Your task to perform on an android device: check out phone information Image 0: 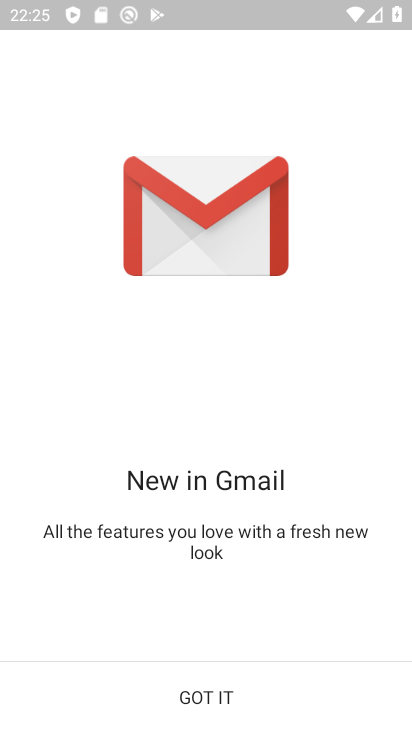
Step 0: press home button
Your task to perform on an android device: check out phone information Image 1: 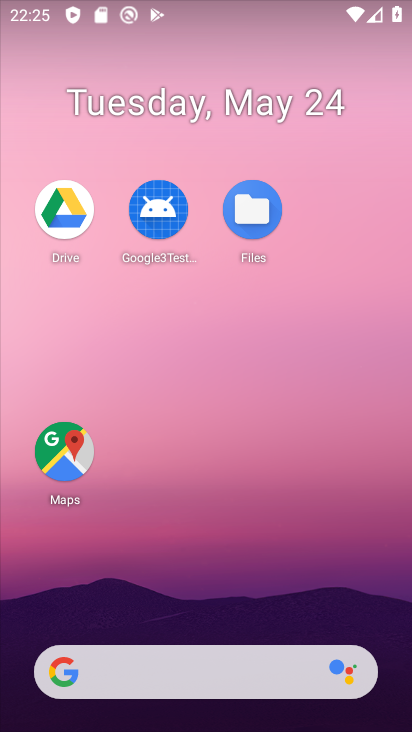
Step 1: drag from (229, 616) to (209, 61)
Your task to perform on an android device: check out phone information Image 2: 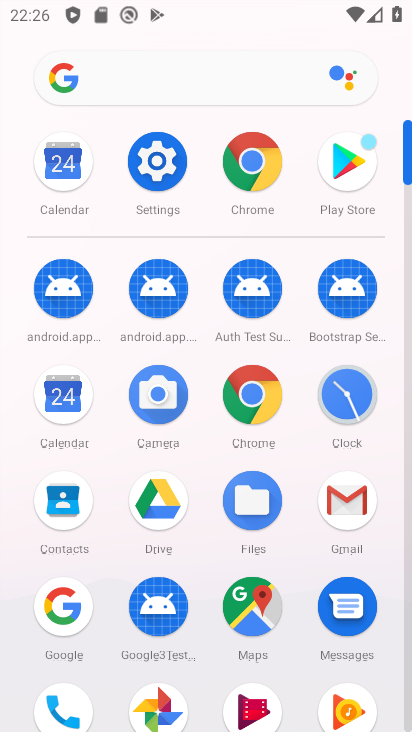
Step 2: click (149, 149)
Your task to perform on an android device: check out phone information Image 3: 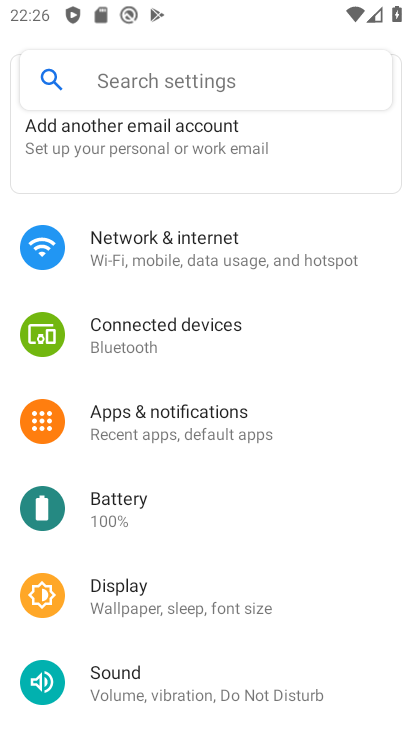
Step 3: drag from (161, 494) to (130, 197)
Your task to perform on an android device: check out phone information Image 4: 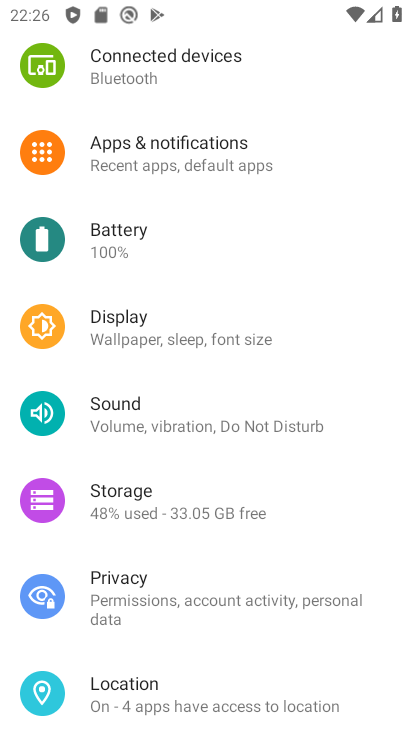
Step 4: drag from (205, 611) to (178, 259)
Your task to perform on an android device: check out phone information Image 5: 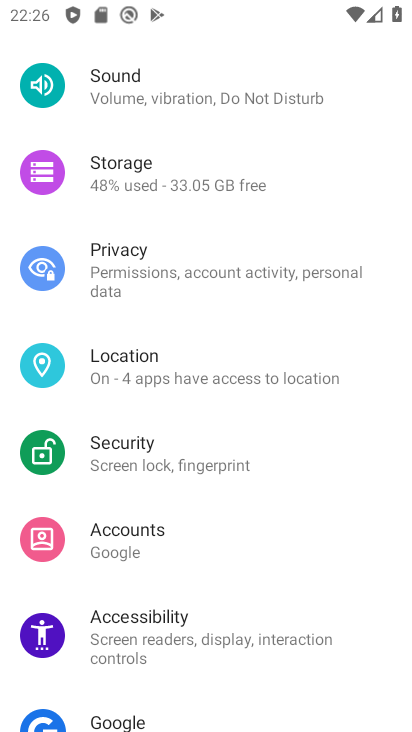
Step 5: drag from (216, 609) to (145, 55)
Your task to perform on an android device: check out phone information Image 6: 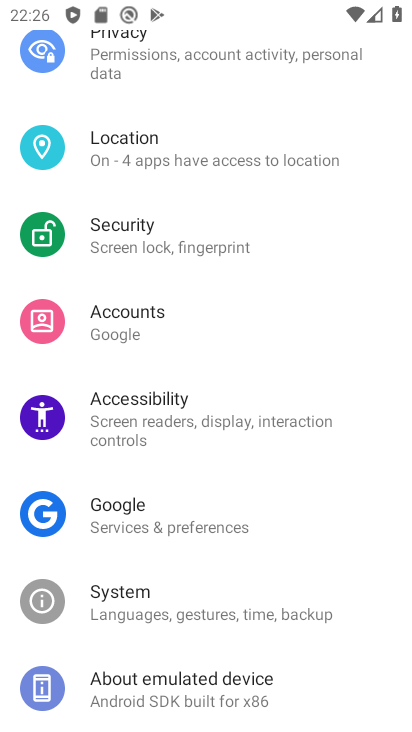
Step 6: click (216, 686)
Your task to perform on an android device: check out phone information Image 7: 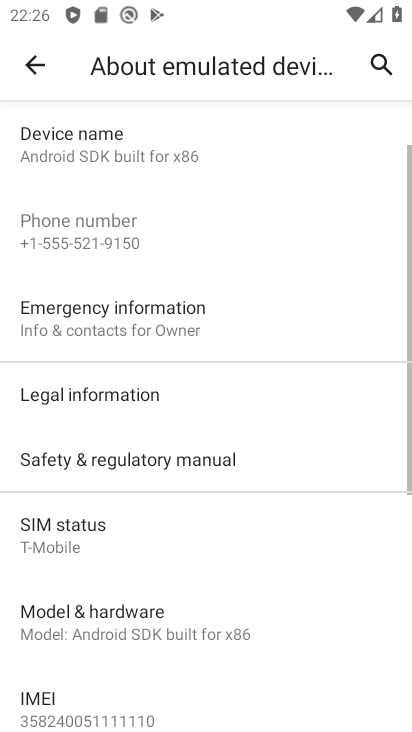
Step 7: task complete